Your task to perform on an android device: find photos in the google photos app Image 0: 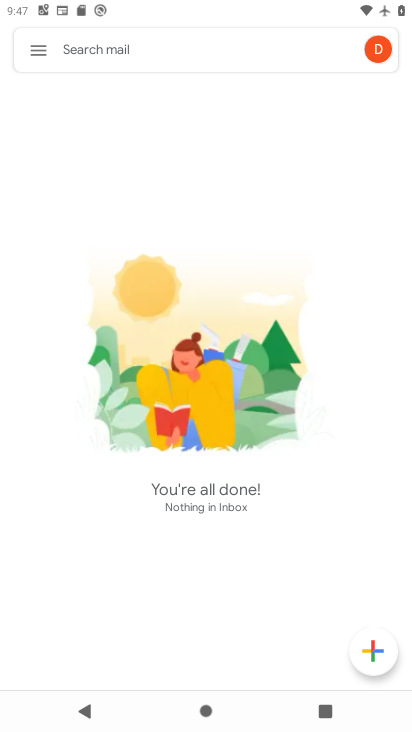
Step 0: press home button
Your task to perform on an android device: find photos in the google photos app Image 1: 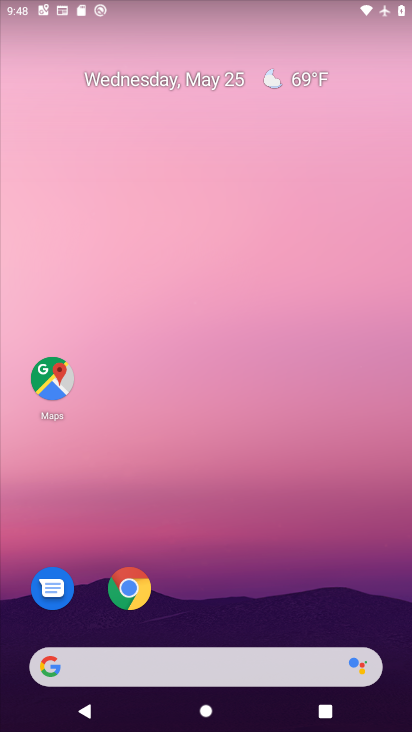
Step 1: drag from (375, 611) to (391, 190)
Your task to perform on an android device: find photos in the google photos app Image 2: 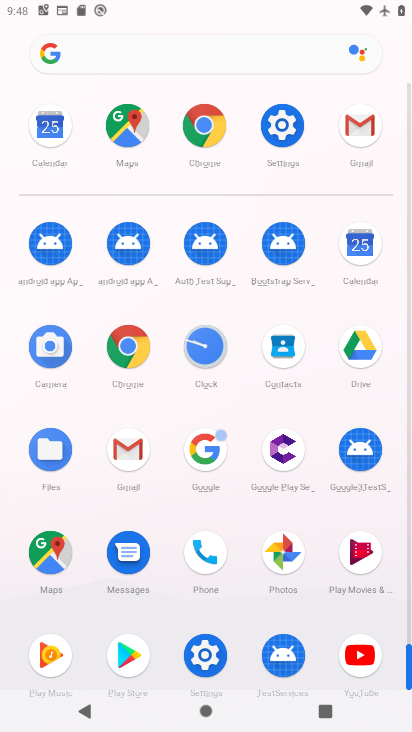
Step 2: click (285, 558)
Your task to perform on an android device: find photos in the google photos app Image 3: 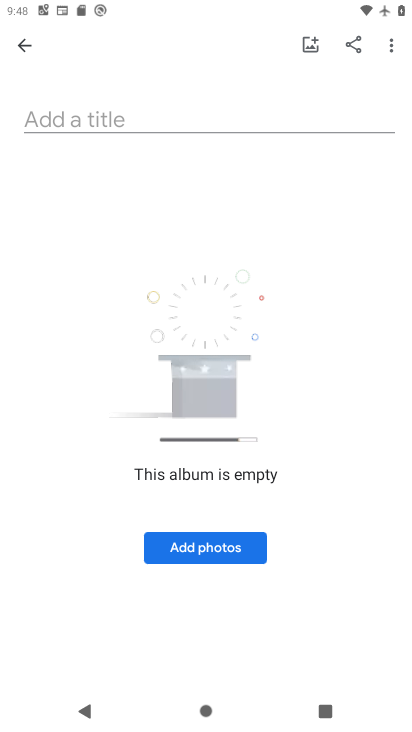
Step 3: click (30, 47)
Your task to perform on an android device: find photos in the google photos app Image 4: 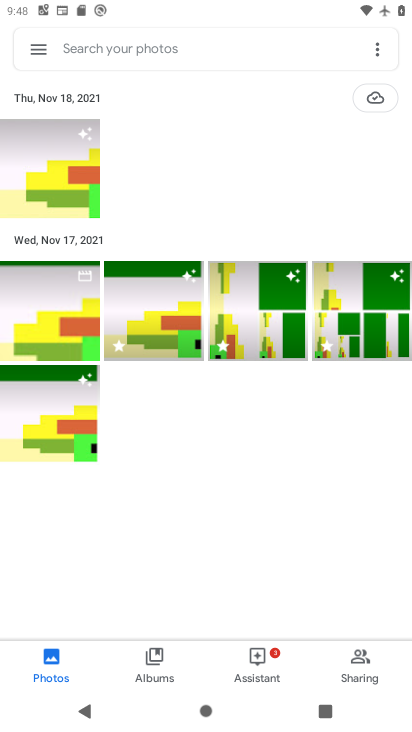
Step 4: click (64, 171)
Your task to perform on an android device: find photos in the google photos app Image 5: 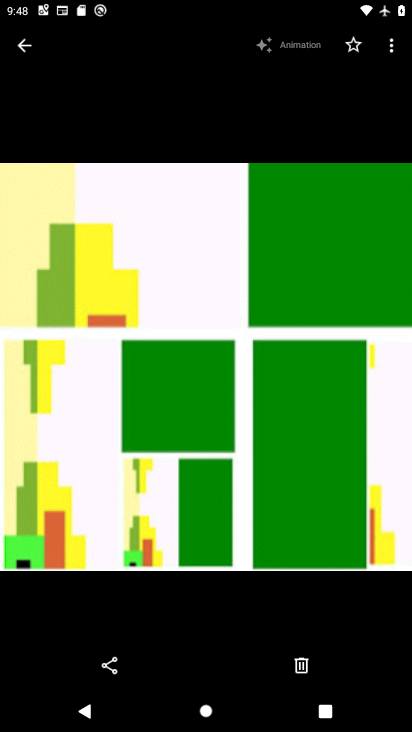
Step 5: task complete